Your task to perform on an android device: change the upload size in google photos Image 0: 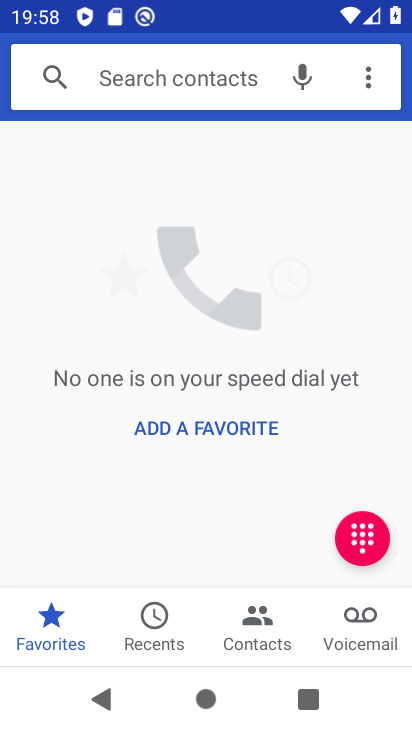
Step 0: press home button
Your task to perform on an android device: change the upload size in google photos Image 1: 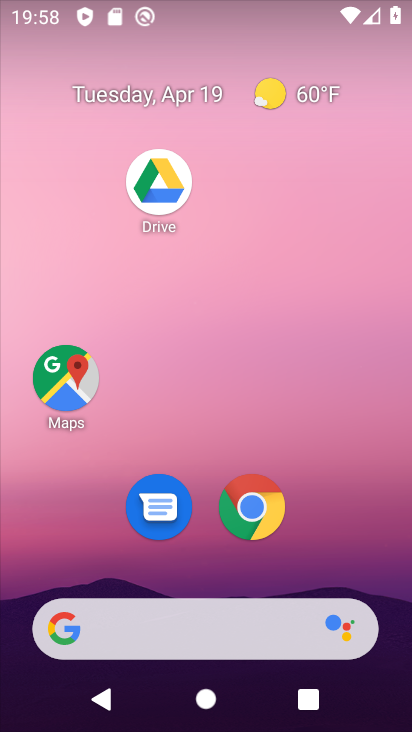
Step 1: drag from (326, 531) to (367, 103)
Your task to perform on an android device: change the upload size in google photos Image 2: 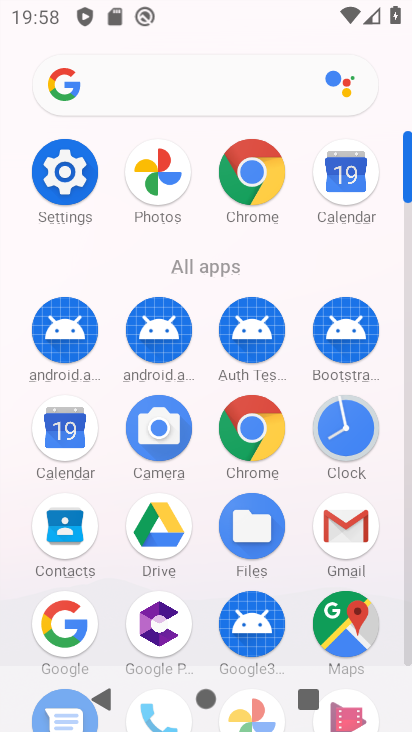
Step 2: click (165, 179)
Your task to perform on an android device: change the upload size in google photos Image 3: 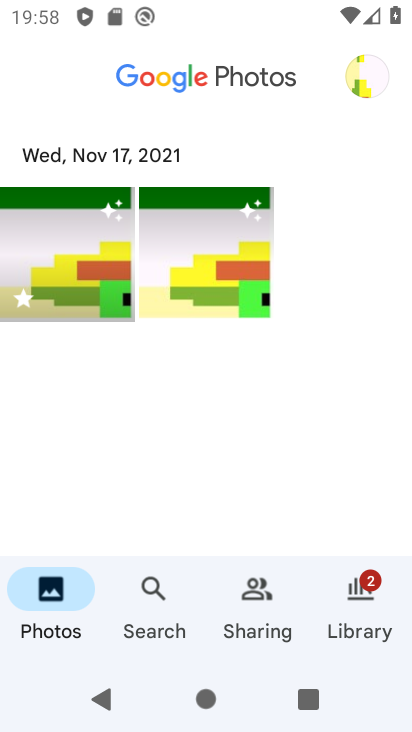
Step 3: click (358, 69)
Your task to perform on an android device: change the upload size in google photos Image 4: 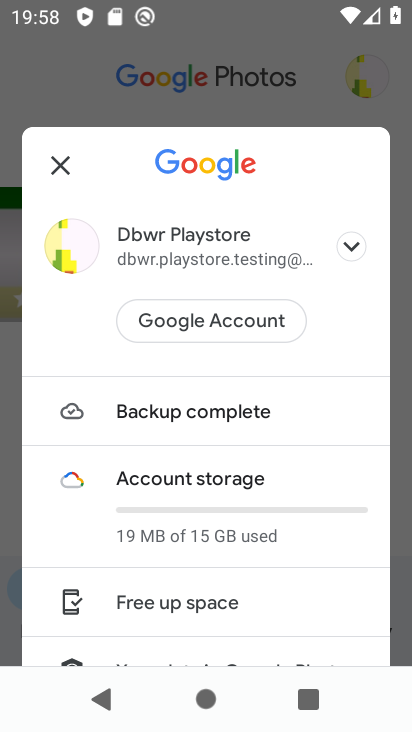
Step 4: drag from (258, 545) to (276, 208)
Your task to perform on an android device: change the upload size in google photos Image 5: 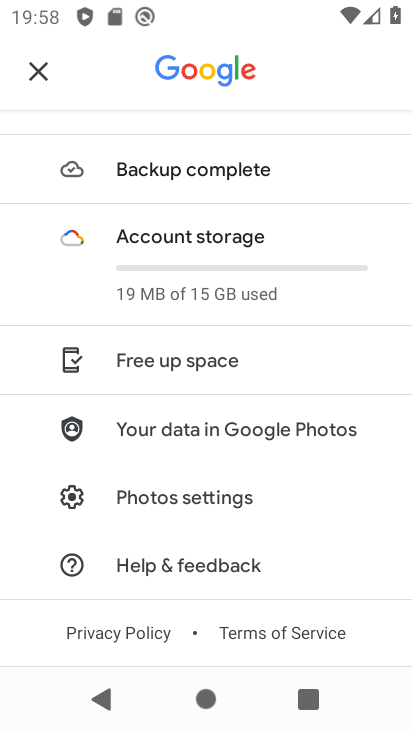
Step 5: click (219, 500)
Your task to perform on an android device: change the upload size in google photos Image 6: 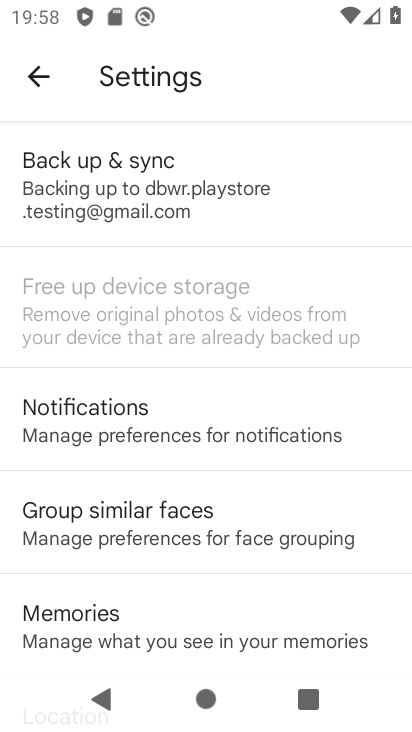
Step 6: drag from (230, 582) to (288, 625)
Your task to perform on an android device: change the upload size in google photos Image 7: 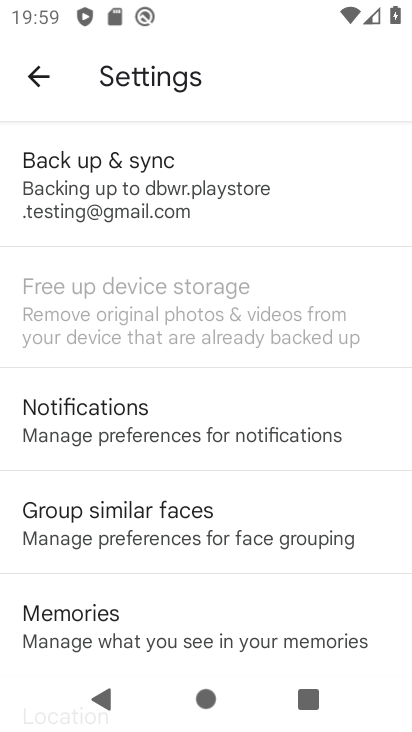
Step 7: click (181, 178)
Your task to perform on an android device: change the upload size in google photos Image 8: 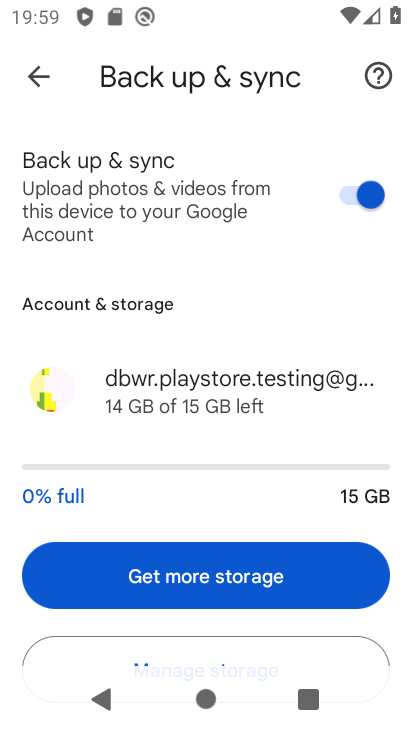
Step 8: drag from (210, 497) to (170, 106)
Your task to perform on an android device: change the upload size in google photos Image 9: 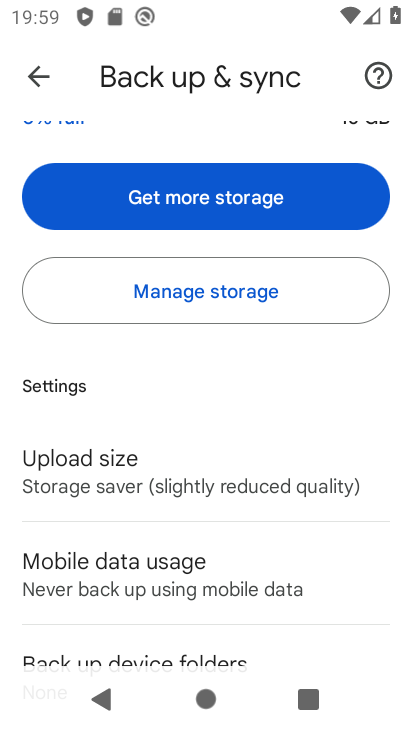
Step 9: click (191, 474)
Your task to perform on an android device: change the upload size in google photos Image 10: 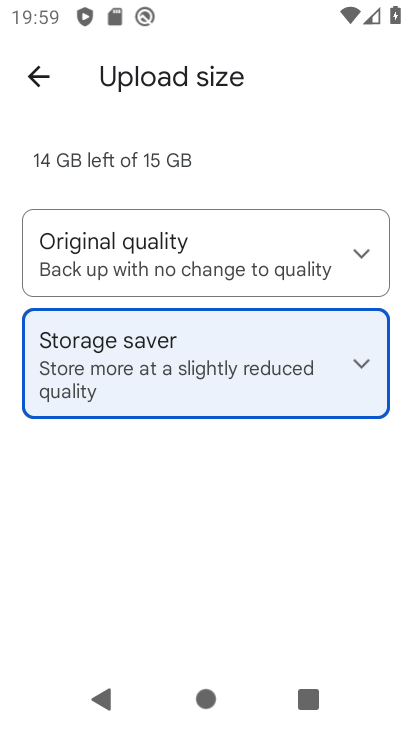
Step 10: click (255, 254)
Your task to perform on an android device: change the upload size in google photos Image 11: 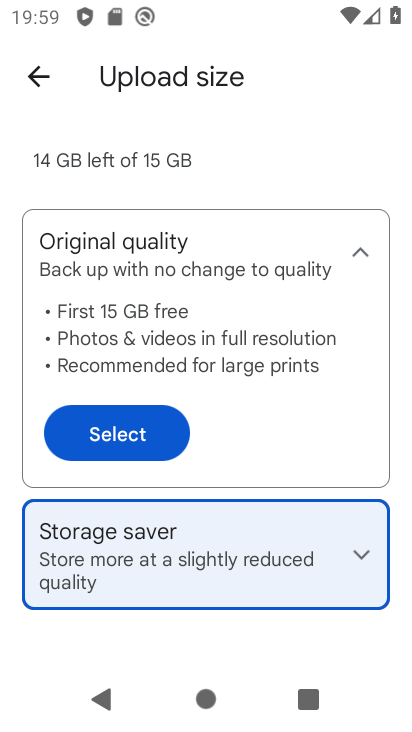
Step 11: task complete